Your task to perform on an android device: Do I have any events tomorrow? Image 0: 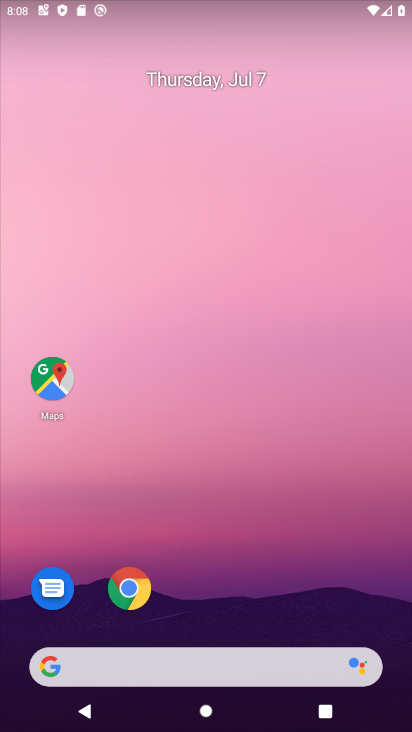
Step 0: drag from (26, 709) to (324, 66)
Your task to perform on an android device: Do I have any events tomorrow? Image 1: 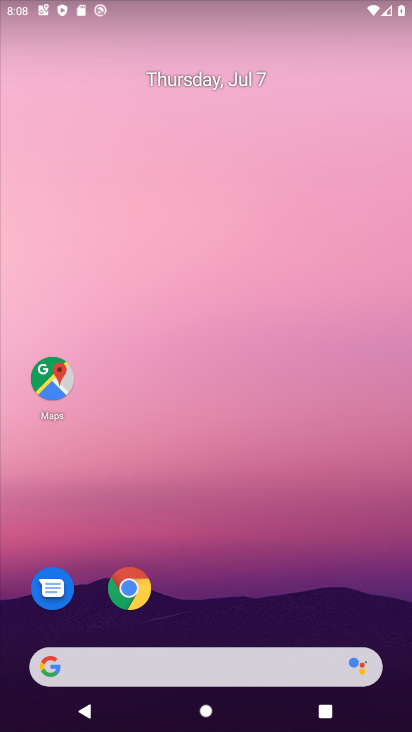
Step 1: drag from (45, 708) to (283, 33)
Your task to perform on an android device: Do I have any events tomorrow? Image 2: 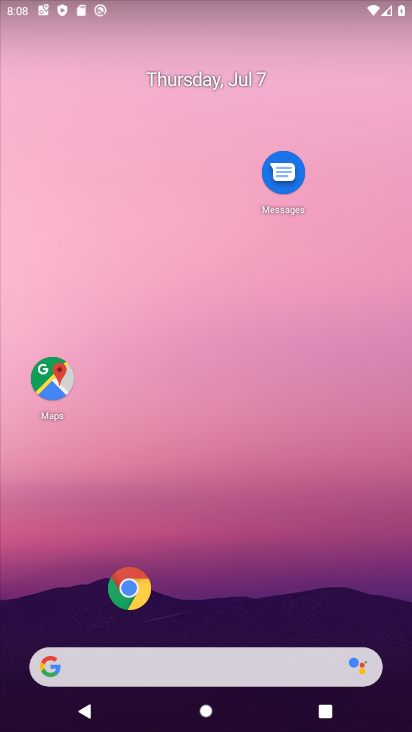
Step 2: drag from (15, 708) to (368, 127)
Your task to perform on an android device: Do I have any events tomorrow? Image 3: 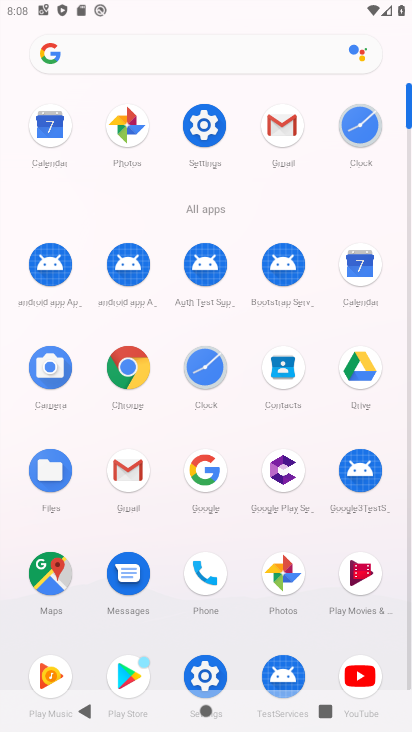
Step 3: click (361, 280)
Your task to perform on an android device: Do I have any events tomorrow? Image 4: 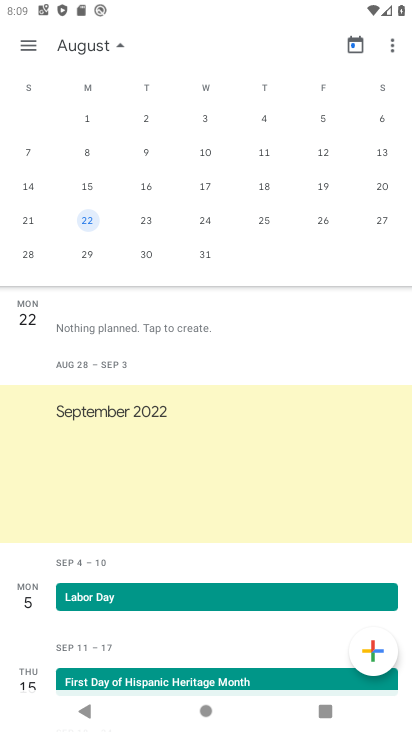
Step 4: drag from (17, 115) to (284, 174)
Your task to perform on an android device: Do I have any events tomorrow? Image 5: 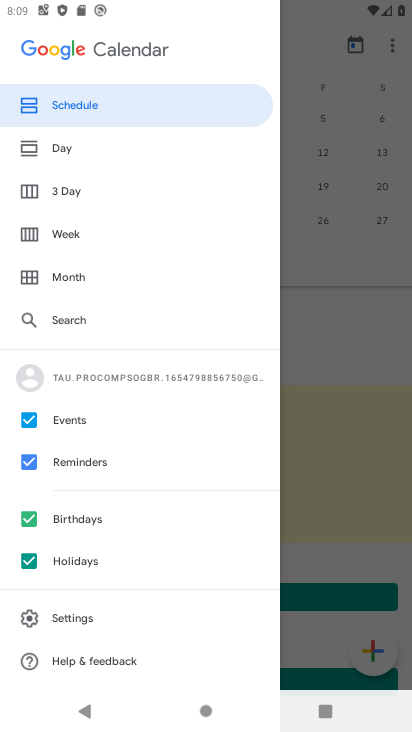
Step 5: click (314, 336)
Your task to perform on an android device: Do I have any events tomorrow? Image 6: 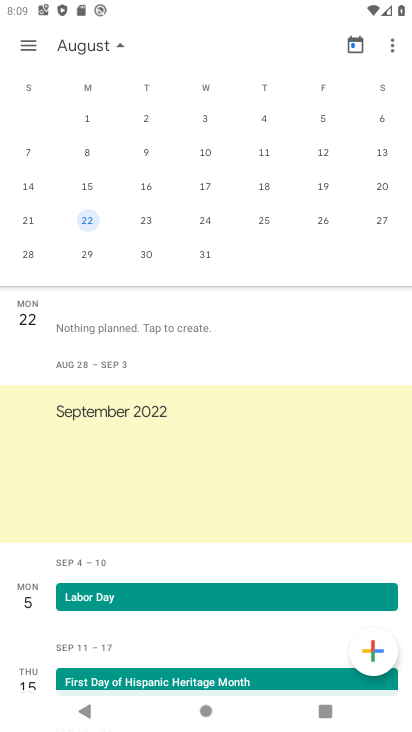
Step 6: drag from (9, 114) to (332, 233)
Your task to perform on an android device: Do I have any events tomorrow? Image 7: 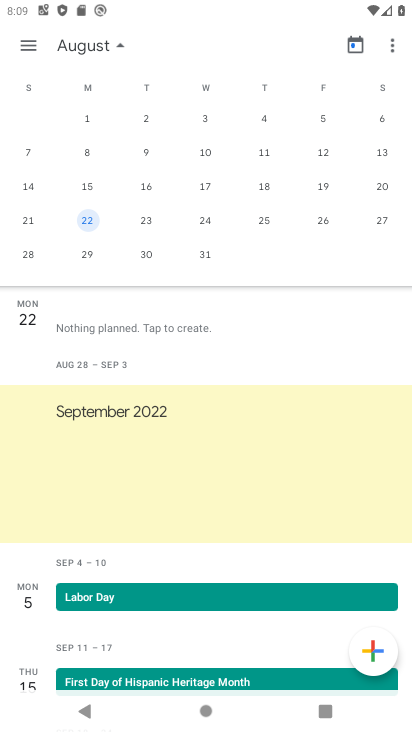
Step 7: click (91, 46)
Your task to perform on an android device: Do I have any events tomorrow? Image 8: 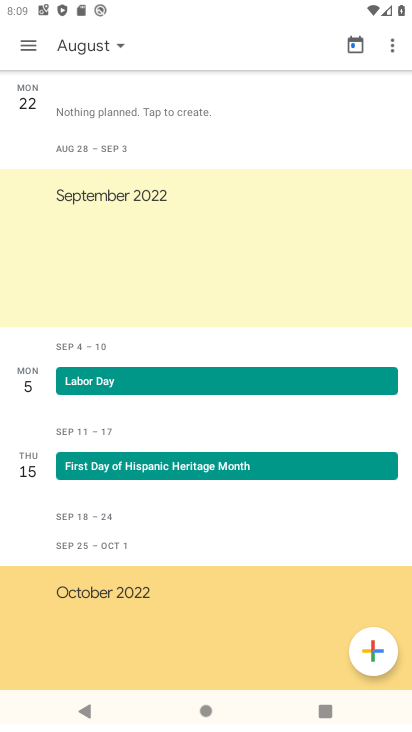
Step 8: click (116, 44)
Your task to perform on an android device: Do I have any events tomorrow? Image 9: 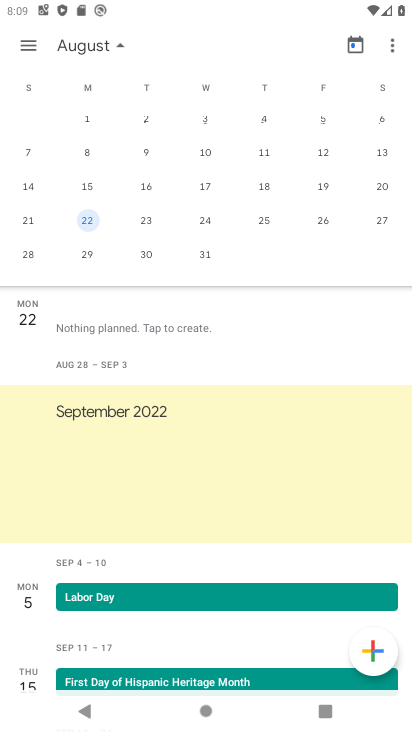
Step 9: click (120, 47)
Your task to perform on an android device: Do I have any events tomorrow? Image 10: 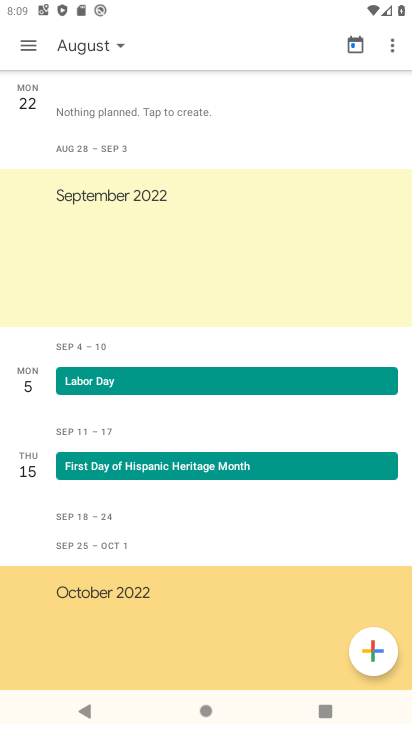
Step 10: click (120, 39)
Your task to perform on an android device: Do I have any events tomorrow? Image 11: 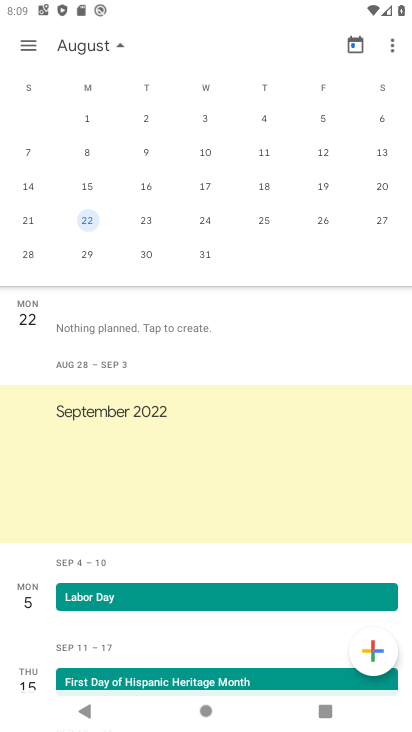
Step 11: click (117, 41)
Your task to perform on an android device: Do I have any events tomorrow? Image 12: 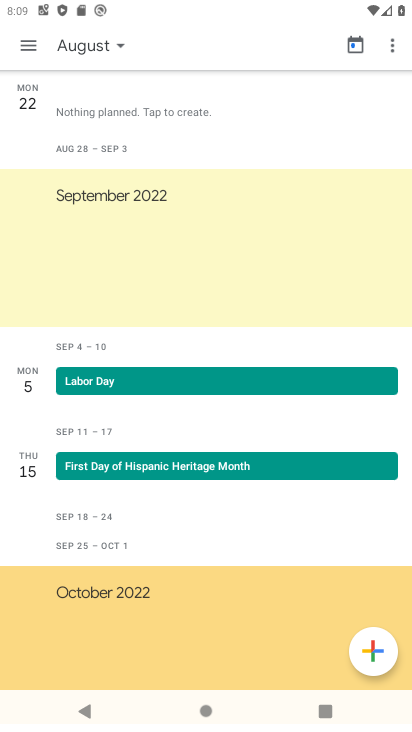
Step 12: click (124, 38)
Your task to perform on an android device: Do I have any events tomorrow? Image 13: 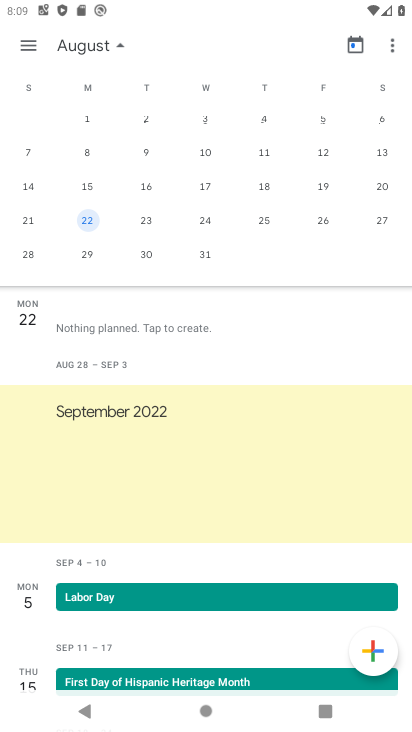
Step 13: drag from (27, 101) to (410, 259)
Your task to perform on an android device: Do I have any events tomorrow? Image 14: 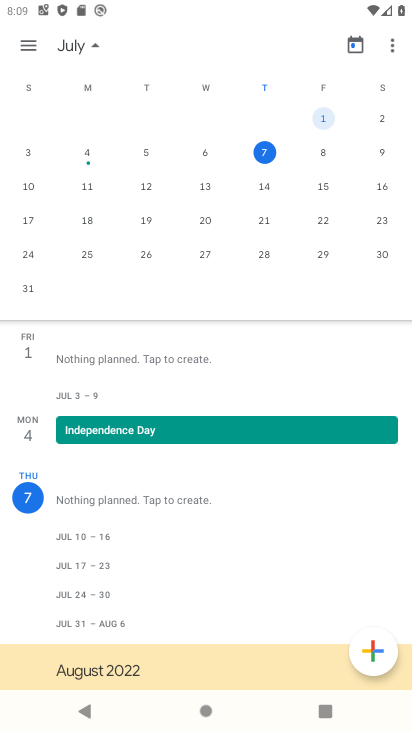
Step 14: click (30, 39)
Your task to perform on an android device: Do I have any events tomorrow? Image 15: 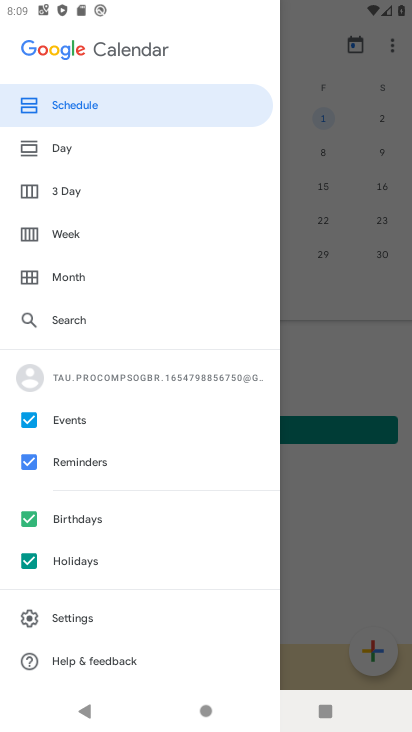
Step 15: click (325, 514)
Your task to perform on an android device: Do I have any events tomorrow? Image 16: 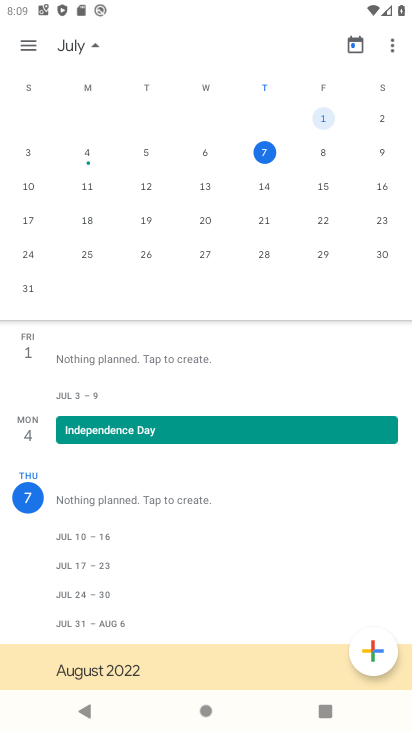
Step 16: task complete